Your task to perform on an android device: Go to ESPN.com Image 0: 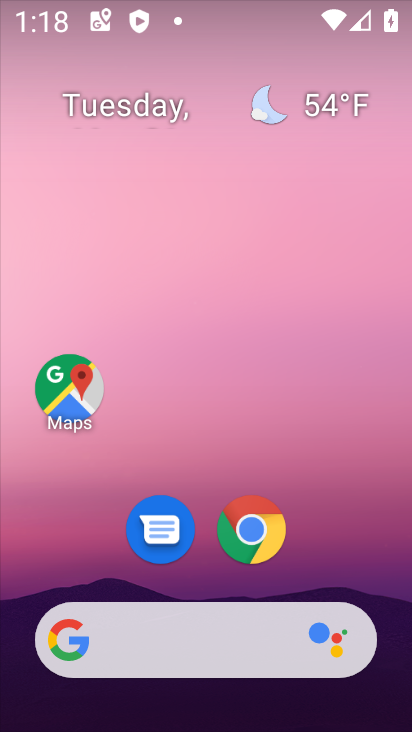
Step 0: click (249, 525)
Your task to perform on an android device: Go to ESPN.com Image 1: 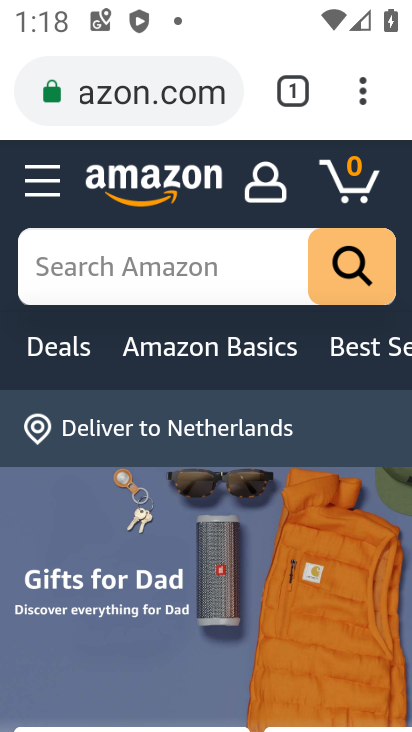
Step 1: click (180, 97)
Your task to perform on an android device: Go to ESPN.com Image 2: 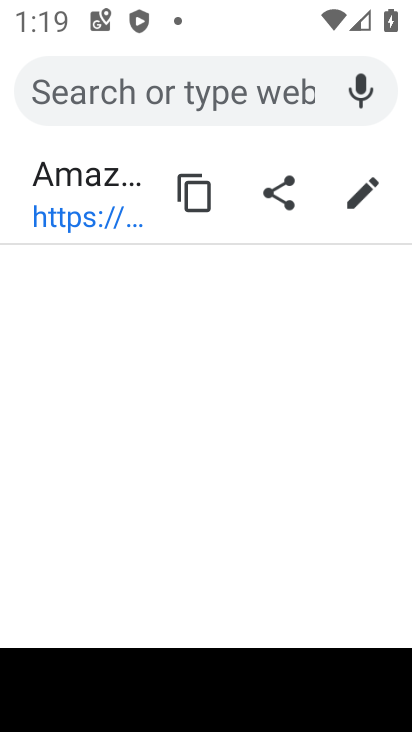
Step 2: type "ESPN.com"
Your task to perform on an android device: Go to ESPN.com Image 3: 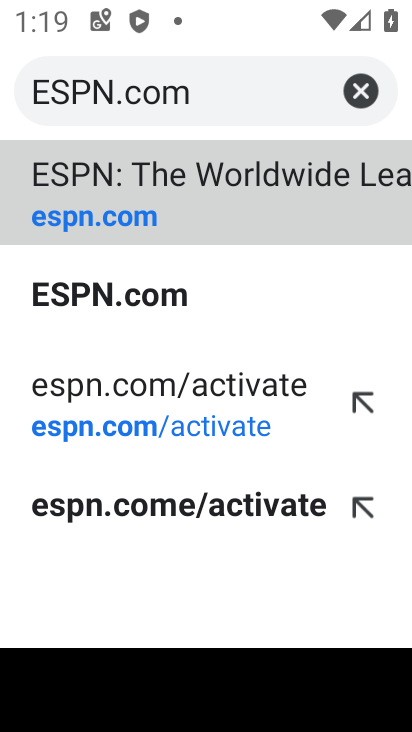
Step 3: click (104, 292)
Your task to perform on an android device: Go to ESPN.com Image 4: 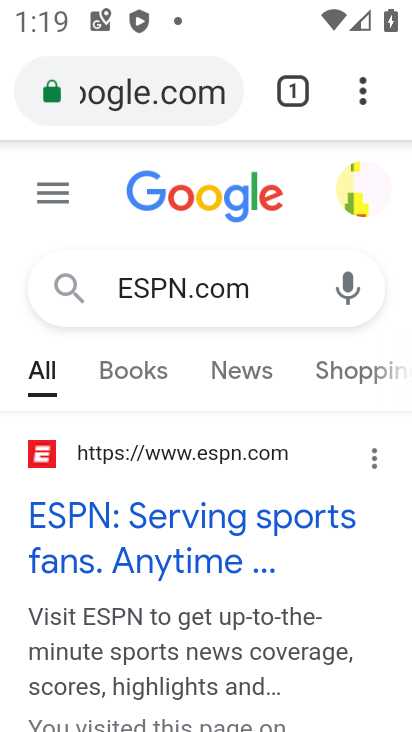
Step 4: click (181, 524)
Your task to perform on an android device: Go to ESPN.com Image 5: 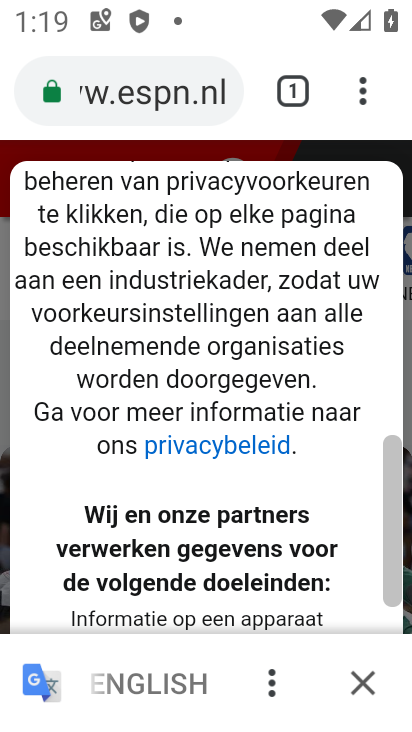
Step 5: task complete